Your task to perform on an android device: Go to internet settings Image 0: 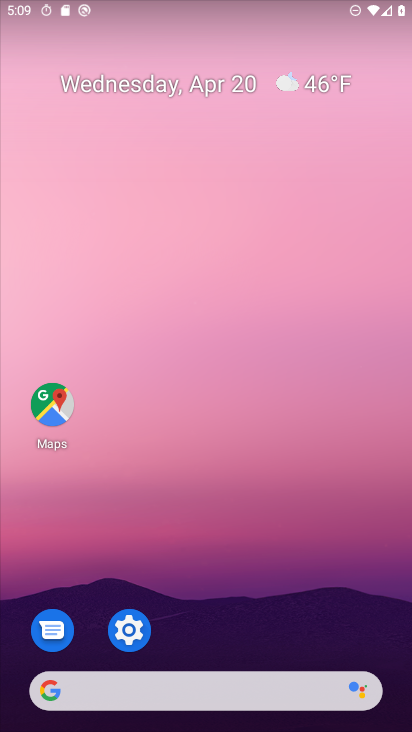
Step 0: drag from (202, 206) to (229, 3)
Your task to perform on an android device: Go to internet settings Image 1: 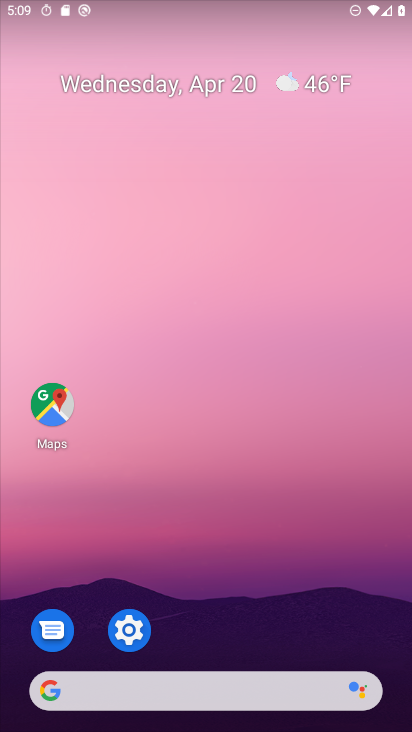
Step 1: drag from (295, 588) to (279, 41)
Your task to perform on an android device: Go to internet settings Image 2: 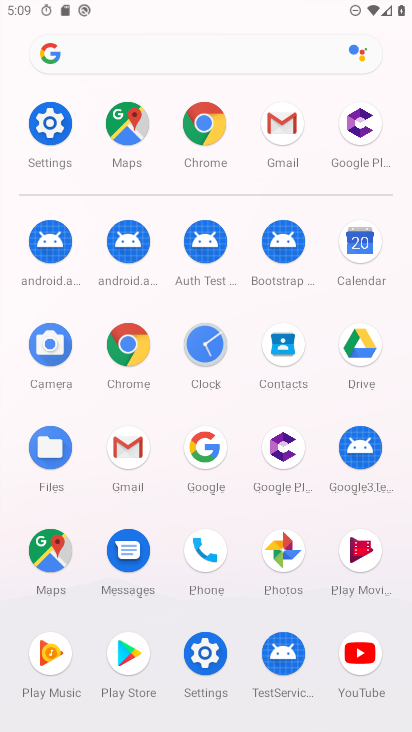
Step 2: click (216, 662)
Your task to perform on an android device: Go to internet settings Image 3: 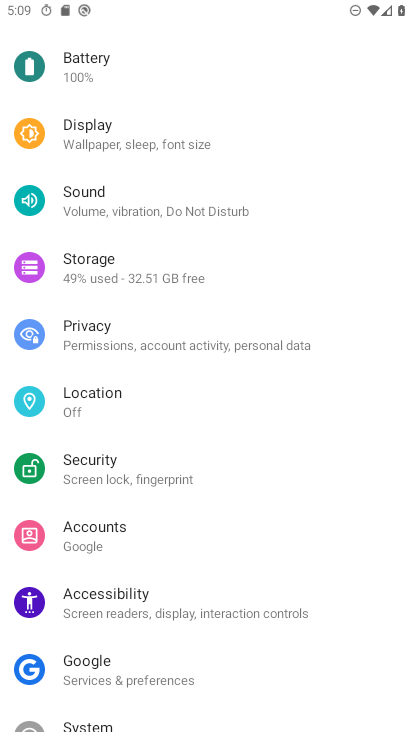
Step 3: drag from (206, 79) to (197, 681)
Your task to perform on an android device: Go to internet settings Image 4: 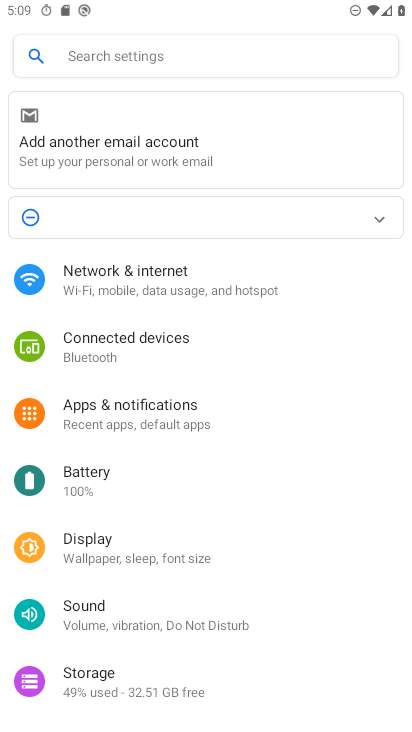
Step 4: click (172, 288)
Your task to perform on an android device: Go to internet settings Image 5: 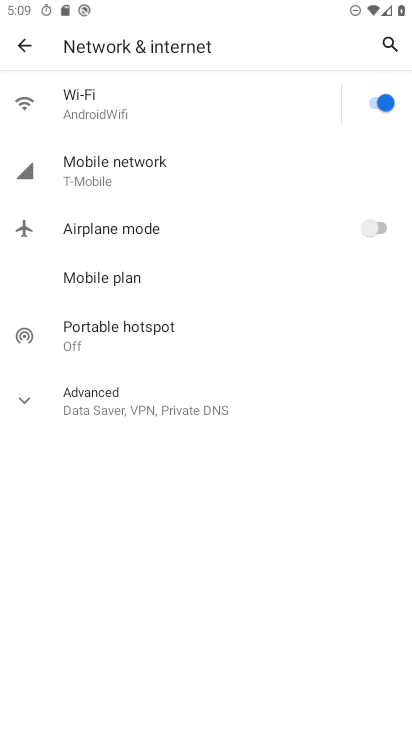
Step 5: click (166, 184)
Your task to perform on an android device: Go to internet settings Image 6: 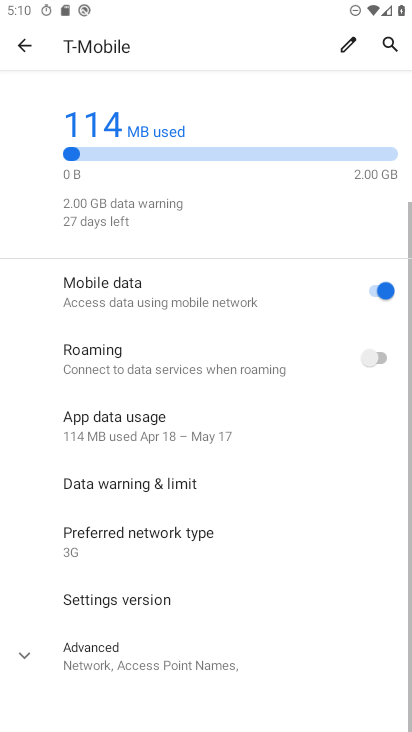
Step 6: task complete